Your task to perform on an android device: turn on javascript in the chrome app Image 0: 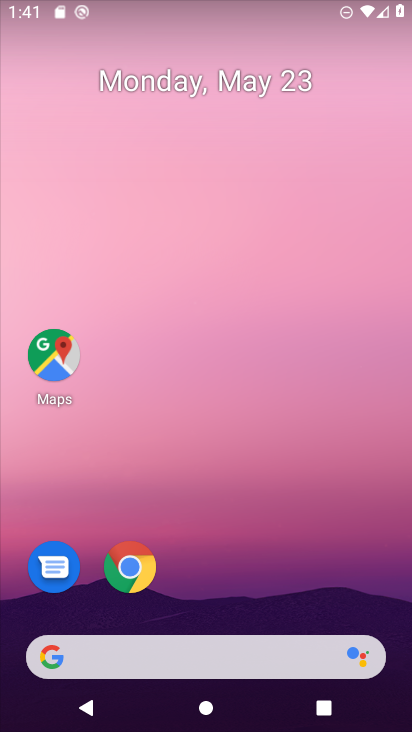
Step 0: click (148, 577)
Your task to perform on an android device: turn on javascript in the chrome app Image 1: 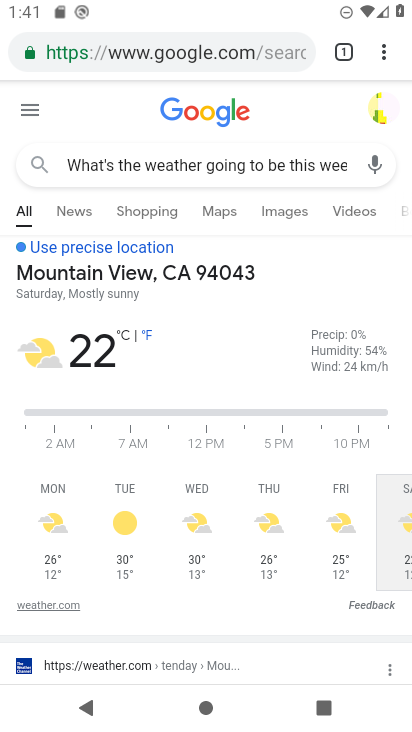
Step 1: drag from (377, 48) to (235, 565)
Your task to perform on an android device: turn on javascript in the chrome app Image 2: 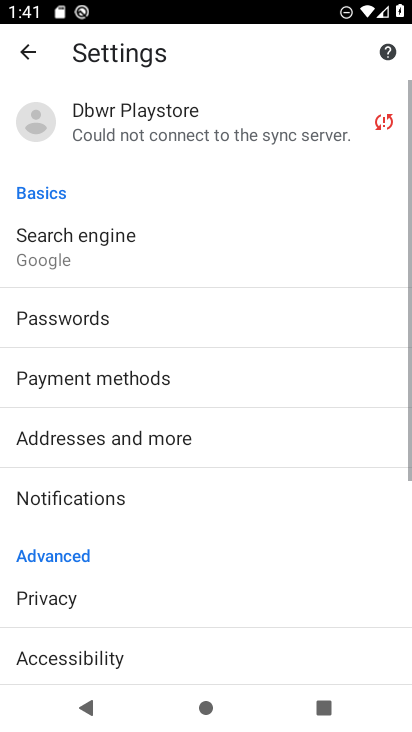
Step 2: drag from (181, 620) to (219, 436)
Your task to perform on an android device: turn on javascript in the chrome app Image 3: 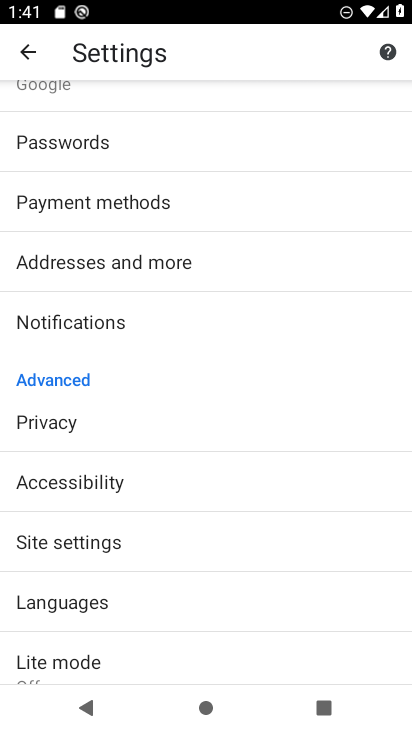
Step 3: click (115, 533)
Your task to perform on an android device: turn on javascript in the chrome app Image 4: 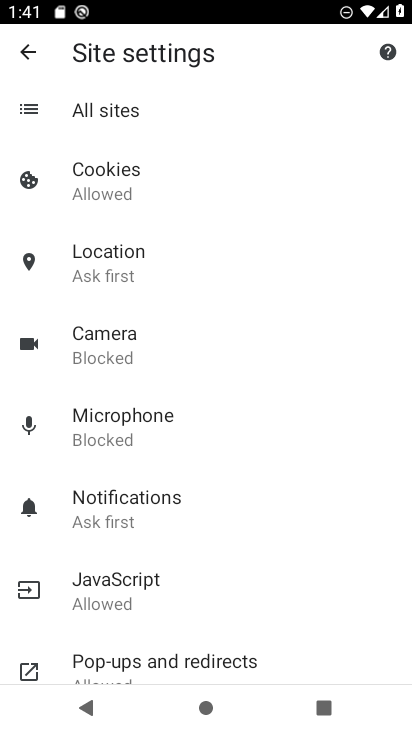
Step 4: click (120, 580)
Your task to perform on an android device: turn on javascript in the chrome app Image 5: 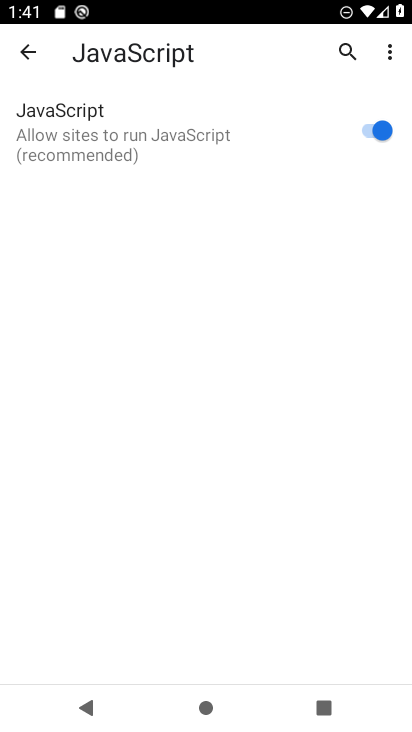
Step 5: task complete